Your task to perform on an android device: turn on the 12-hour format for clock Image 0: 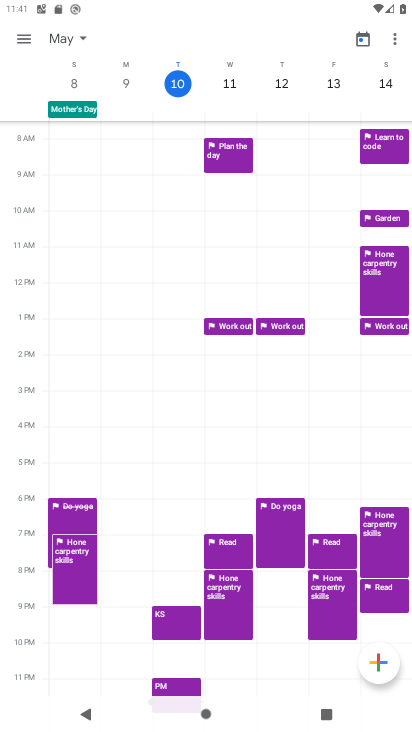
Step 0: press home button
Your task to perform on an android device: turn on the 12-hour format for clock Image 1: 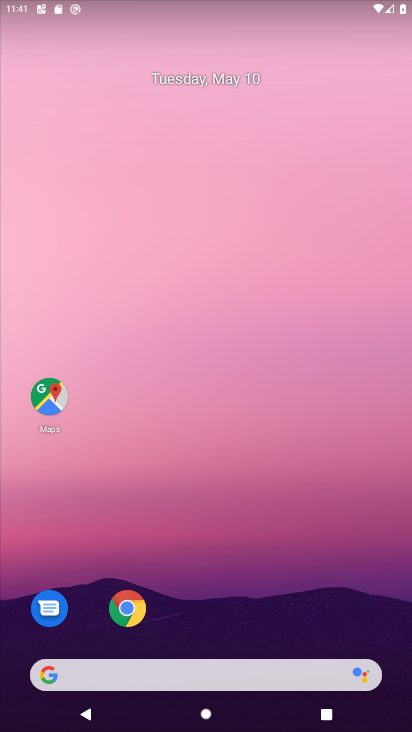
Step 1: drag from (211, 667) to (167, 60)
Your task to perform on an android device: turn on the 12-hour format for clock Image 2: 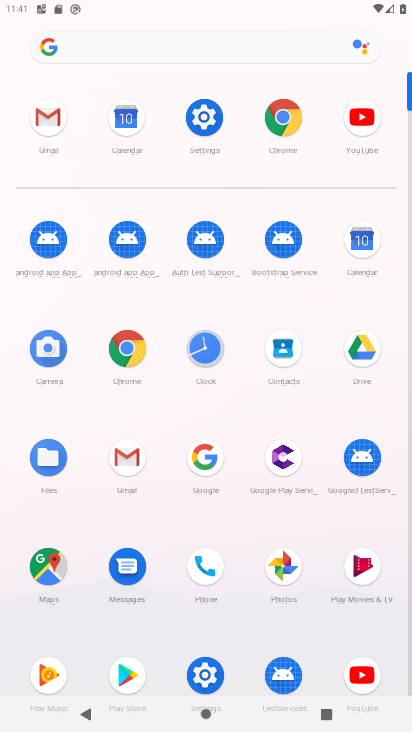
Step 2: click (204, 121)
Your task to perform on an android device: turn on the 12-hour format for clock Image 3: 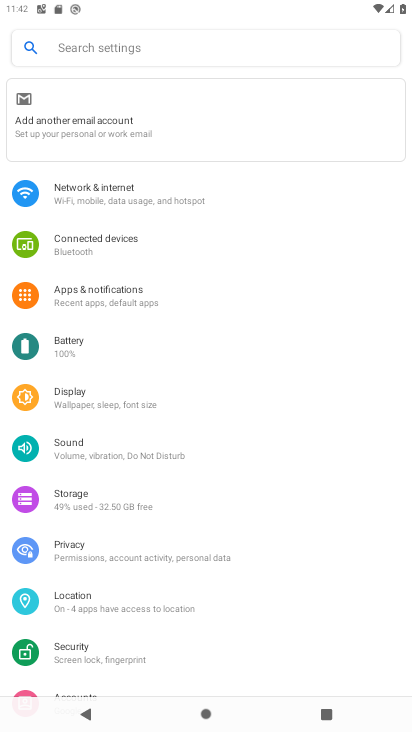
Step 3: drag from (139, 609) to (81, 42)
Your task to perform on an android device: turn on the 12-hour format for clock Image 4: 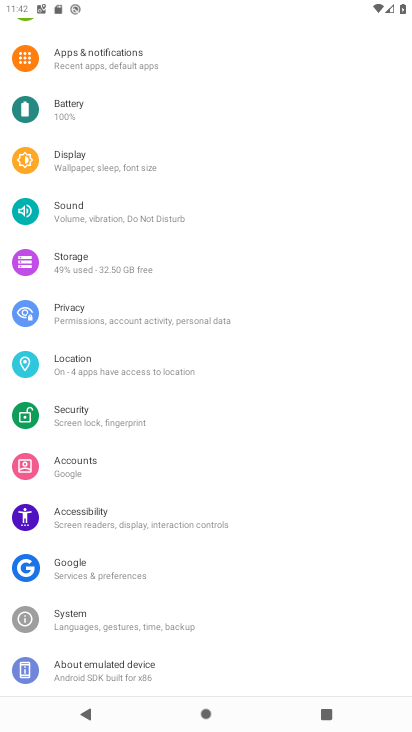
Step 4: drag from (167, 566) to (133, 92)
Your task to perform on an android device: turn on the 12-hour format for clock Image 5: 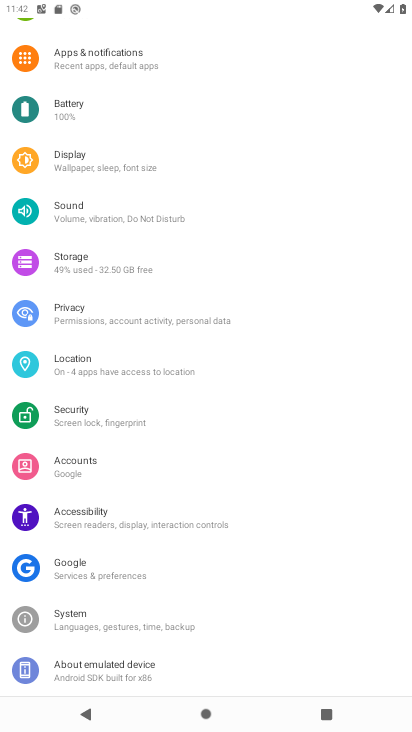
Step 5: click (124, 628)
Your task to perform on an android device: turn on the 12-hour format for clock Image 6: 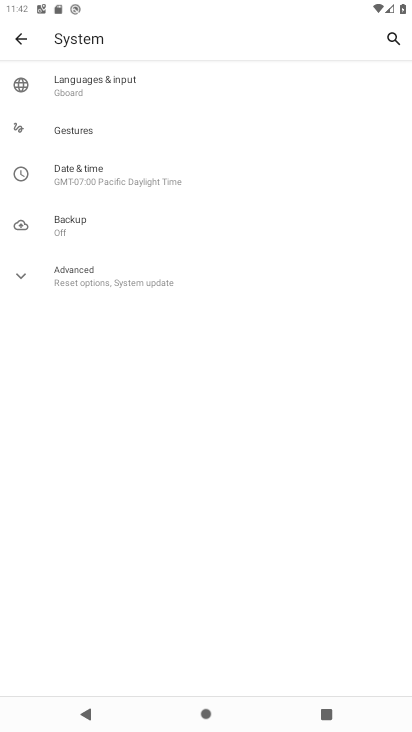
Step 6: click (108, 181)
Your task to perform on an android device: turn on the 12-hour format for clock Image 7: 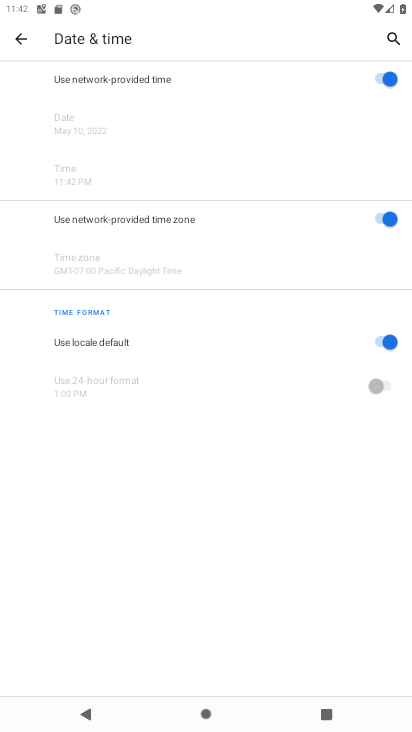
Step 7: task complete